Your task to perform on an android device: manage bookmarks in the chrome app Image 0: 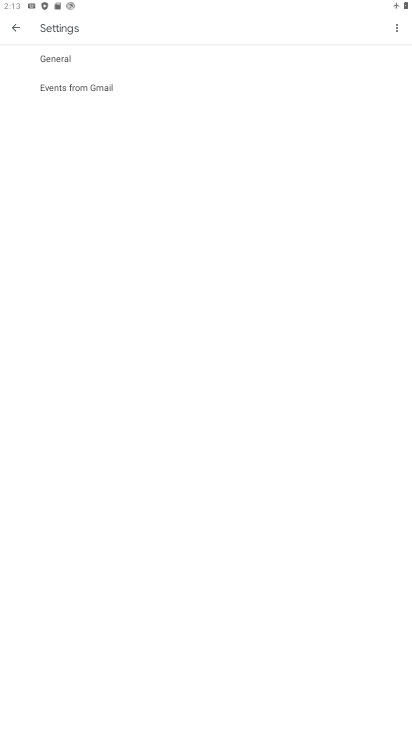
Step 0: press home button
Your task to perform on an android device: manage bookmarks in the chrome app Image 1: 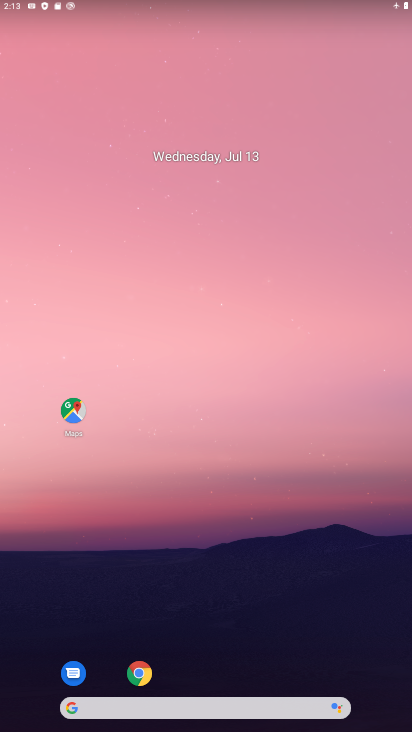
Step 1: click (138, 675)
Your task to perform on an android device: manage bookmarks in the chrome app Image 2: 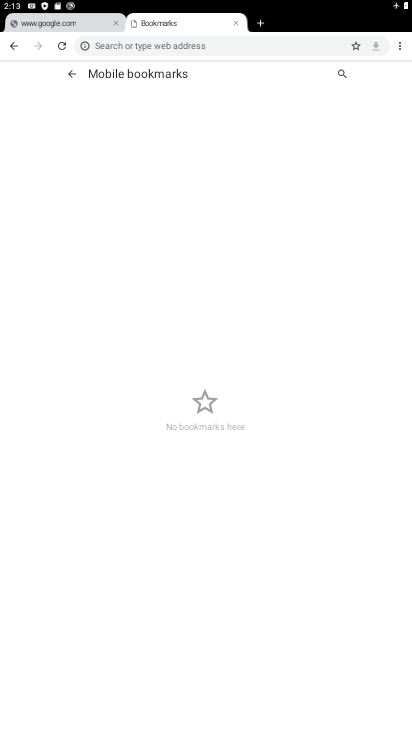
Step 2: click (399, 44)
Your task to perform on an android device: manage bookmarks in the chrome app Image 3: 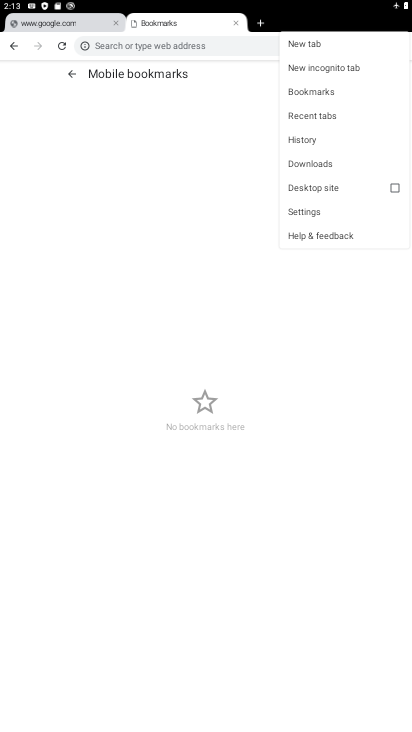
Step 3: click (325, 98)
Your task to perform on an android device: manage bookmarks in the chrome app Image 4: 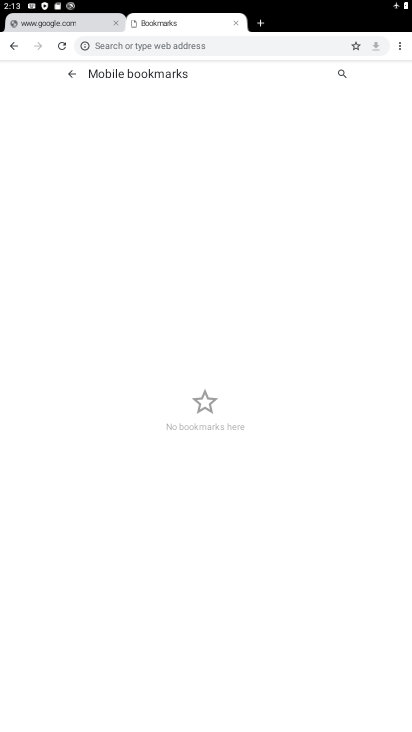
Step 4: task complete